Your task to perform on an android device: Go to Google maps Image 0: 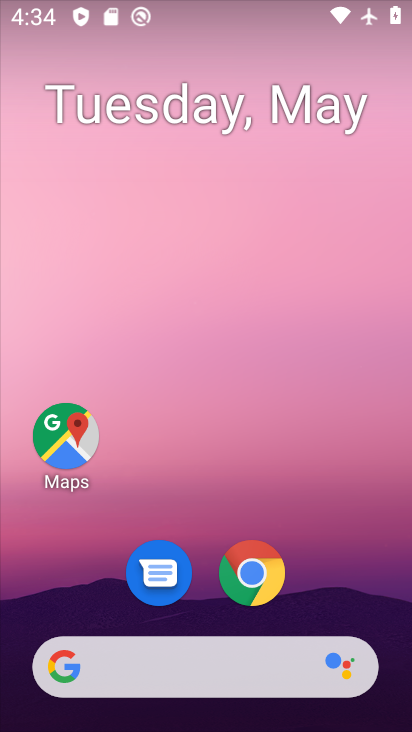
Step 0: click (68, 441)
Your task to perform on an android device: Go to Google maps Image 1: 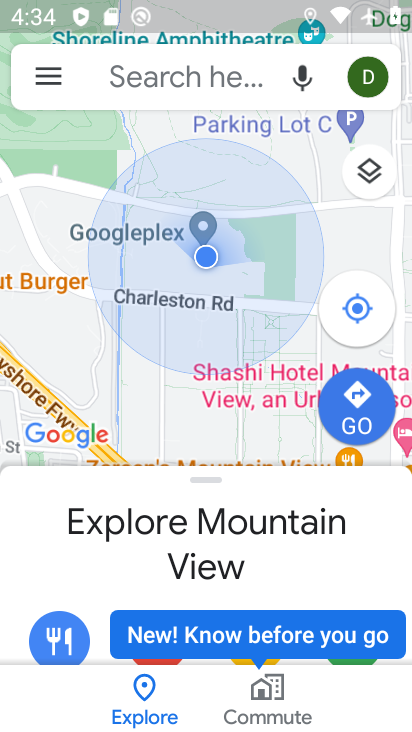
Step 1: task complete